Your task to perform on an android device: check storage Image 0: 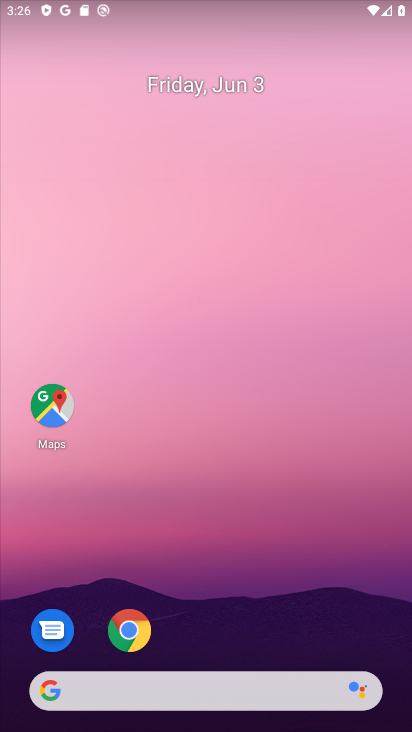
Step 0: drag from (175, 266) to (133, 7)
Your task to perform on an android device: check storage Image 1: 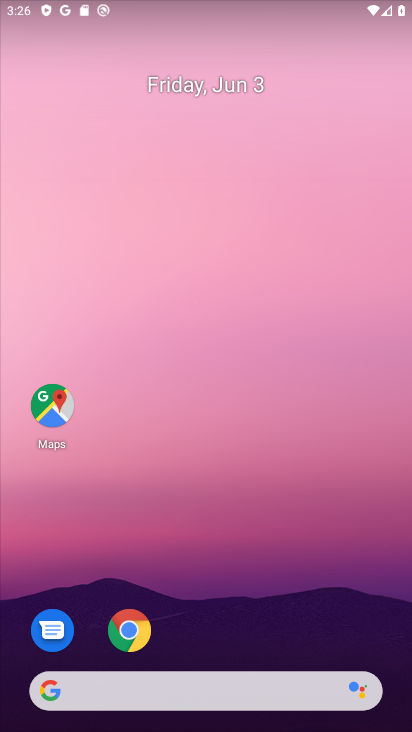
Step 1: click (121, 113)
Your task to perform on an android device: check storage Image 2: 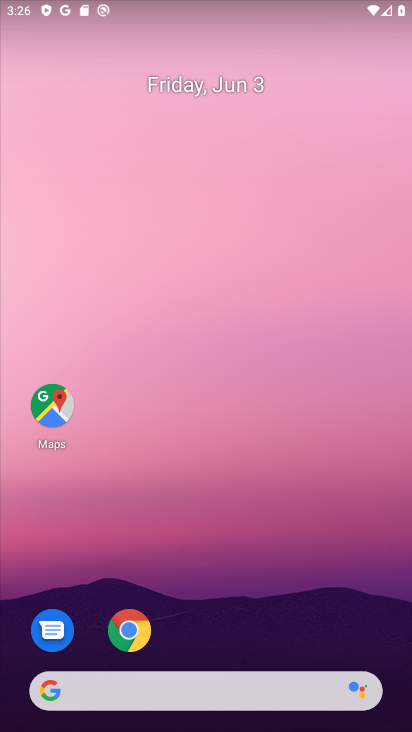
Step 2: drag from (288, 644) to (253, 218)
Your task to perform on an android device: check storage Image 3: 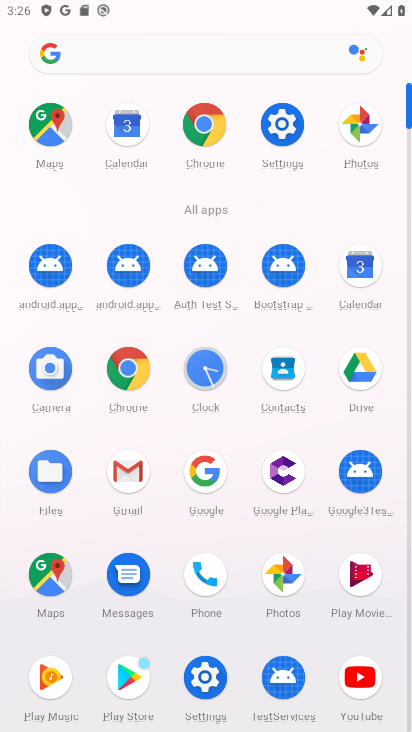
Step 3: click (199, 678)
Your task to perform on an android device: check storage Image 4: 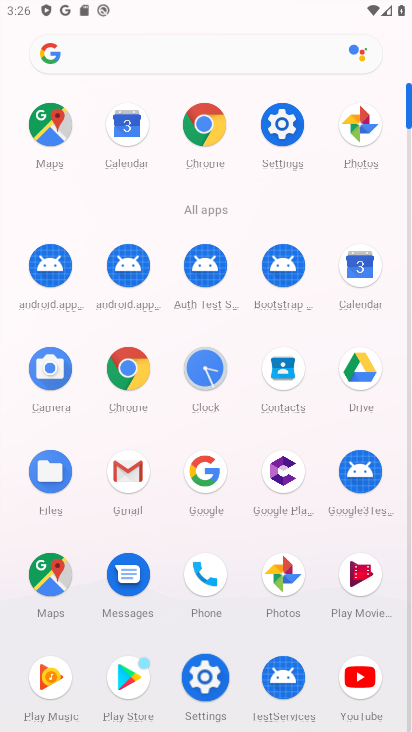
Step 4: click (206, 674)
Your task to perform on an android device: check storage Image 5: 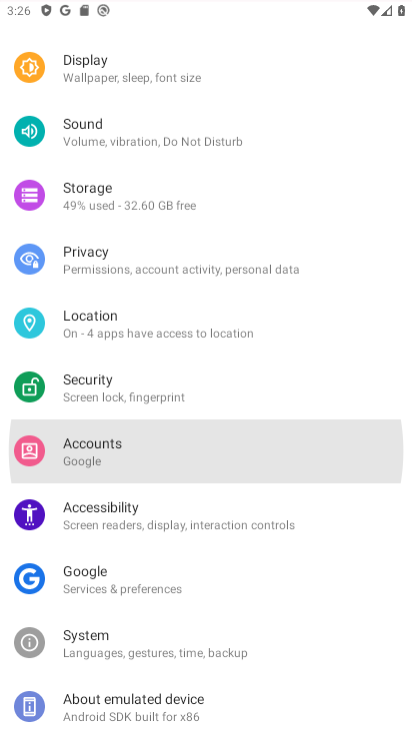
Step 5: click (207, 673)
Your task to perform on an android device: check storage Image 6: 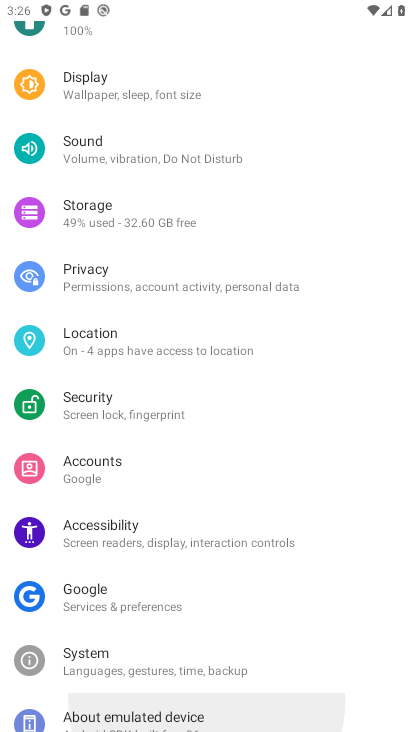
Step 6: click (207, 673)
Your task to perform on an android device: check storage Image 7: 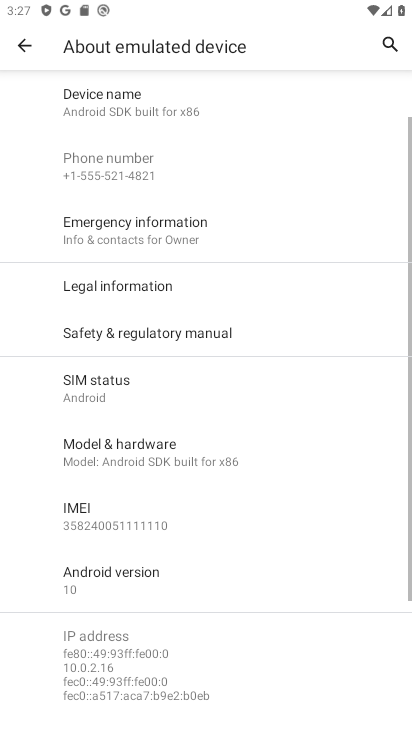
Step 7: click (27, 42)
Your task to perform on an android device: check storage Image 8: 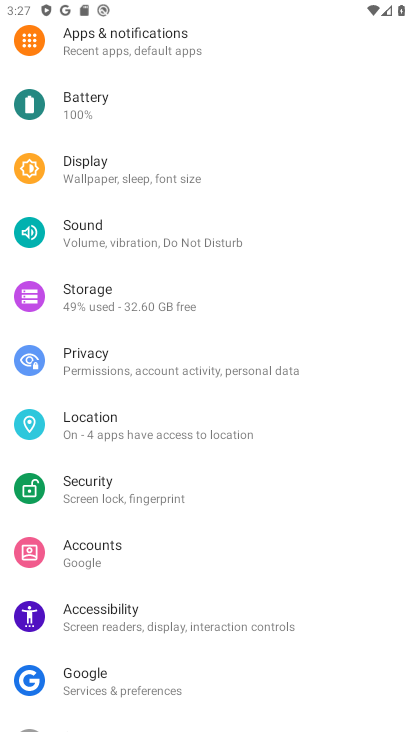
Step 8: click (87, 283)
Your task to perform on an android device: check storage Image 9: 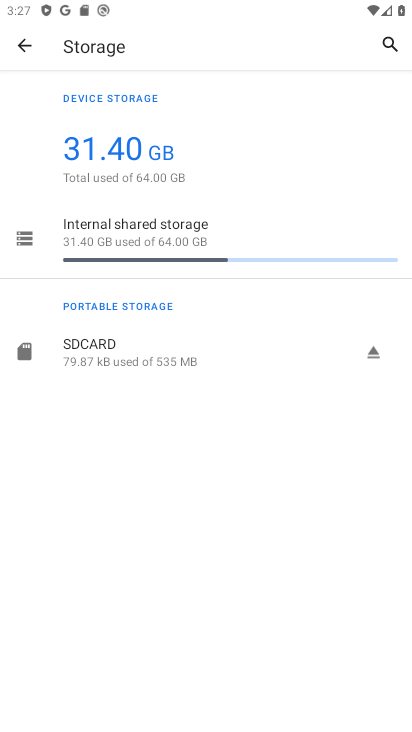
Step 9: task complete